Your task to perform on an android device: Open Reddit.com Image 0: 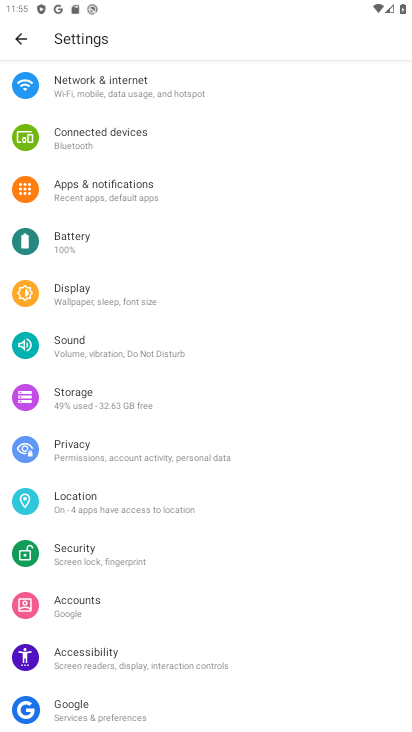
Step 0: press home button
Your task to perform on an android device: Open Reddit.com Image 1: 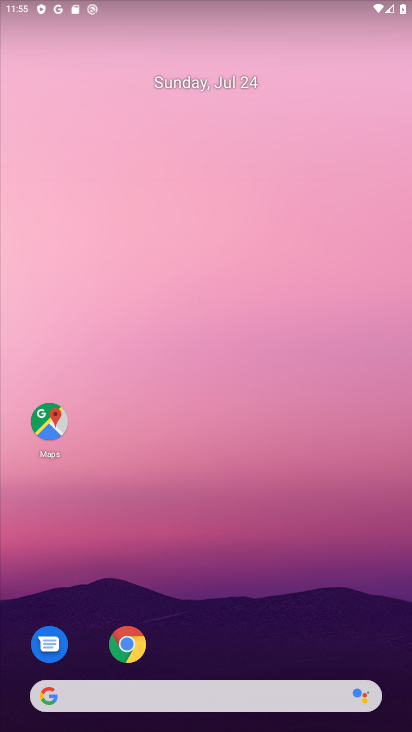
Step 1: click (158, 698)
Your task to perform on an android device: Open Reddit.com Image 2: 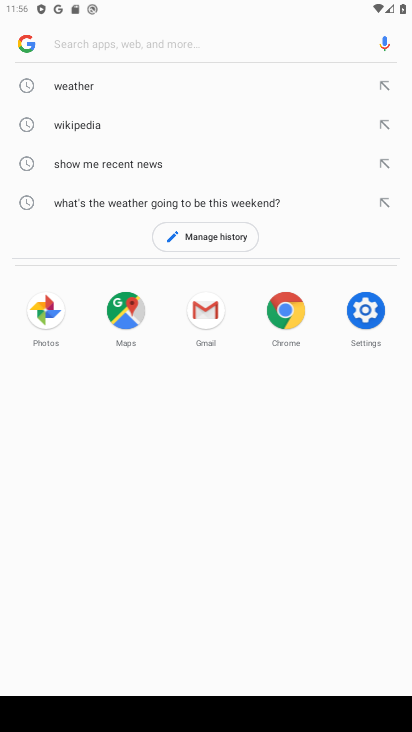
Step 2: type "reddit"
Your task to perform on an android device: Open Reddit.com Image 3: 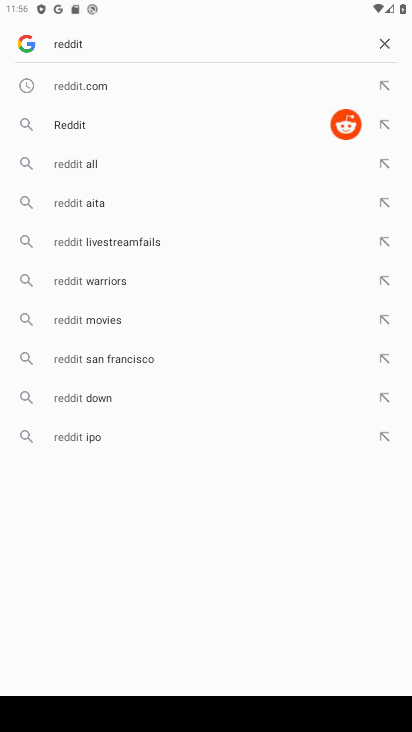
Step 3: click (120, 130)
Your task to perform on an android device: Open Reddit.com Image 4: 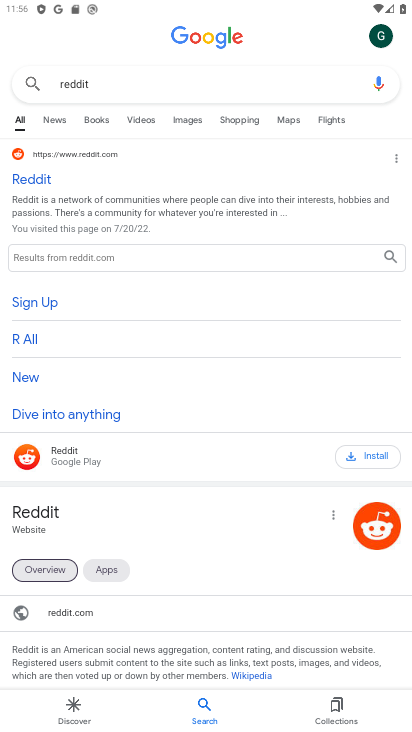
Step 4: click (22, 175)
Your task to perform on an android device: Open Reddit.com Image 5: 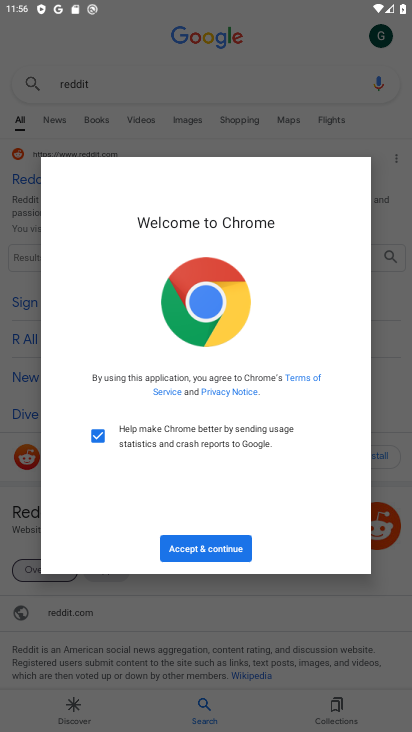
Step 5: click (213, 548)
Your task to perform on an android device: Open Reddit.com Image 6: 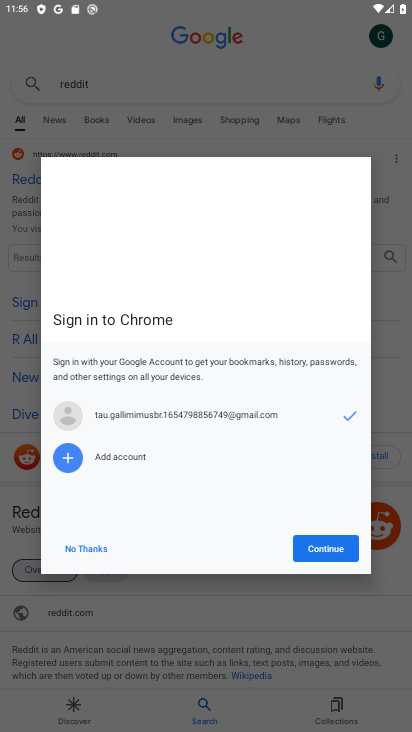
Step 6: click (213, 548)
Your task to perform on an android device: Open Reddit.com Image 7: 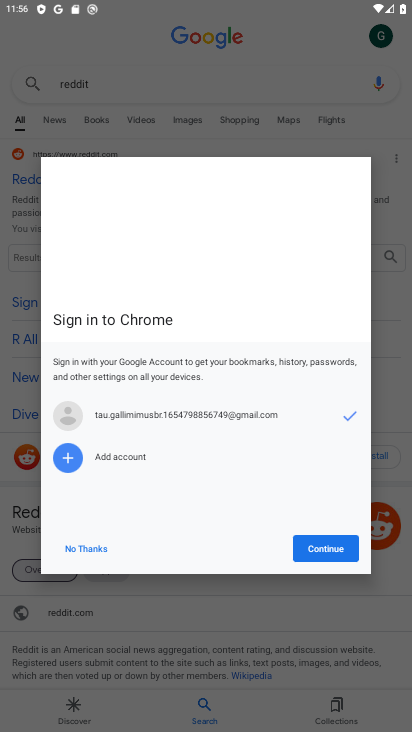
Step 7: click (347, 549)
Your task to perform on an android device: Open Reddit.com Image 8: 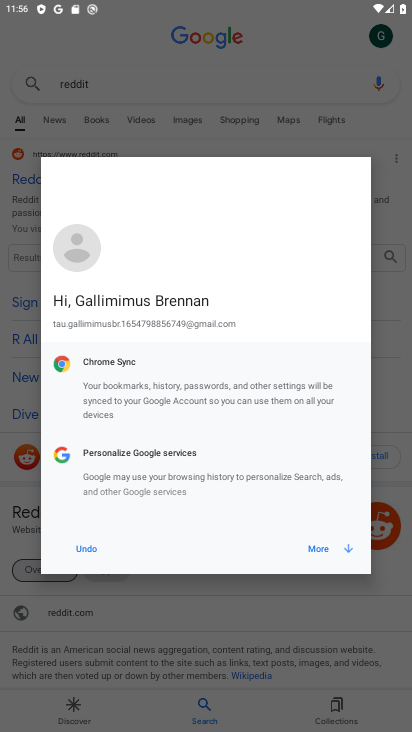
Step 8: click (346, 549)
Your task to perform on an android device: Open Reddit.com Image 9: 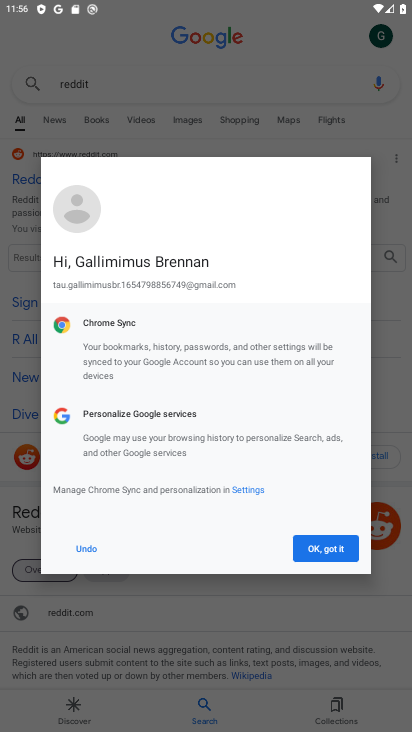
Step 9: click (346, 549)
Your task to perform on an android device: Open Reddit.com Image 10: 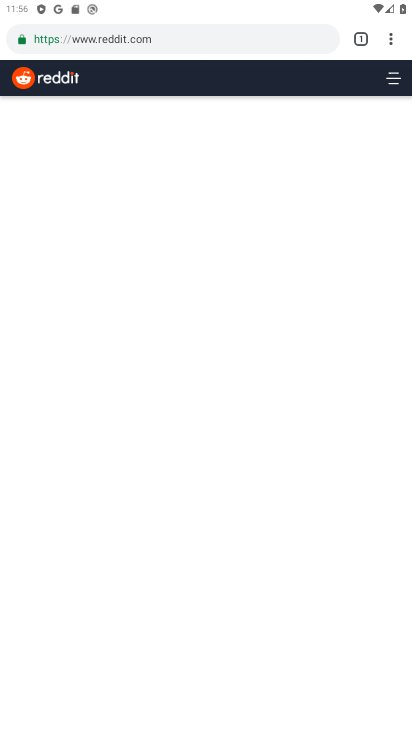
Step 10: task complete